Your task to perform on an android device: toggle wifi Image 0: 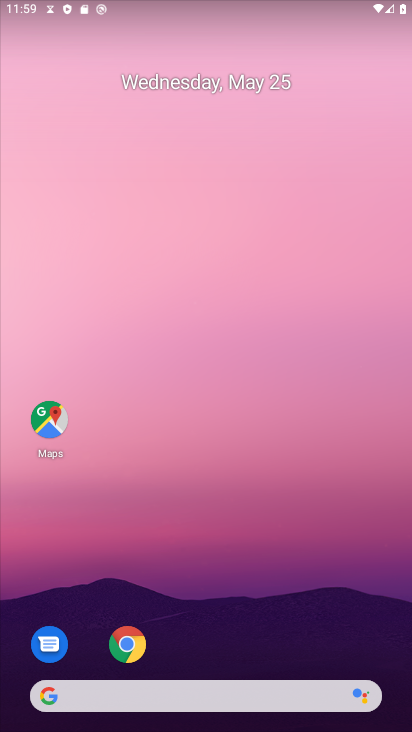
Step 0: drag from (252, 622) to (244, 135)
Your task to perform on an android device: toggle wifi Image 1: 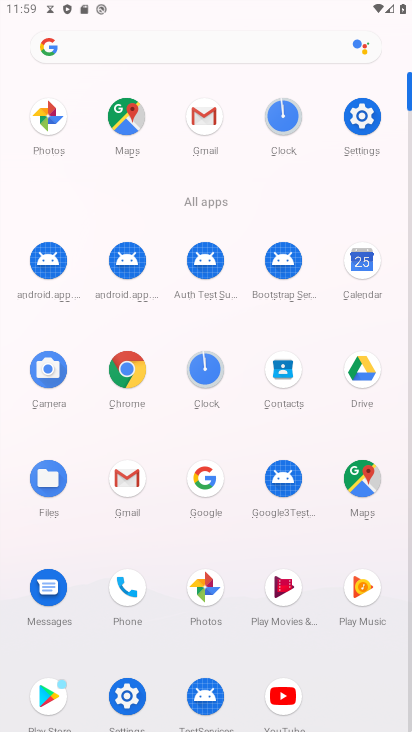
Step 1: click (361, 117)
Your task to perform on an android device: toggle wifi Image 2: 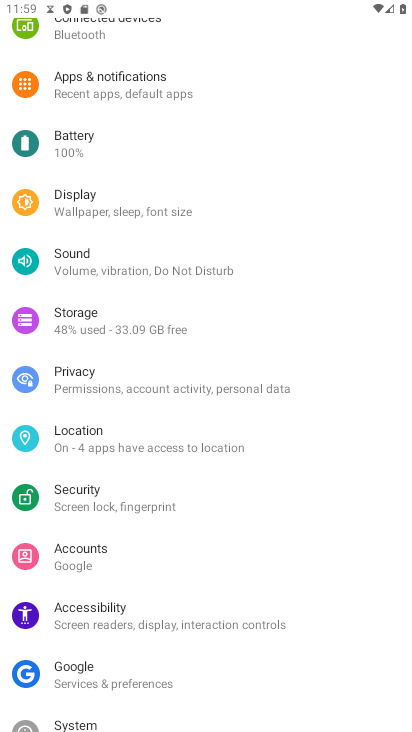
Step 2: drag from (202, 162) to (171, 261)
Your task to perform on an android device: toggle wifi Image 3: 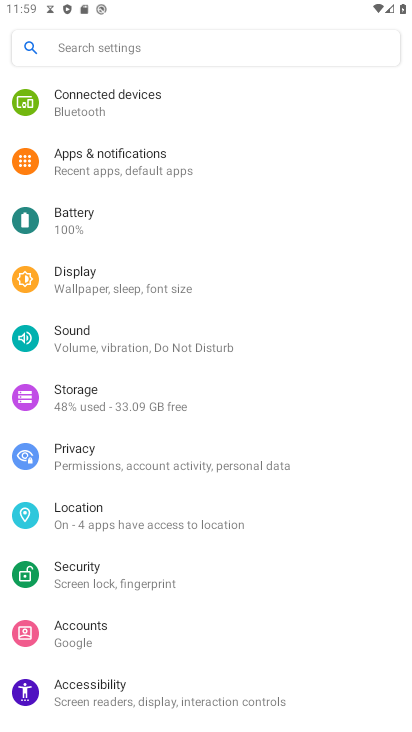
Step 3: drag from (194, 139) to (164, 315)
Your task to perform on an android device: toggle wifi Image 4: 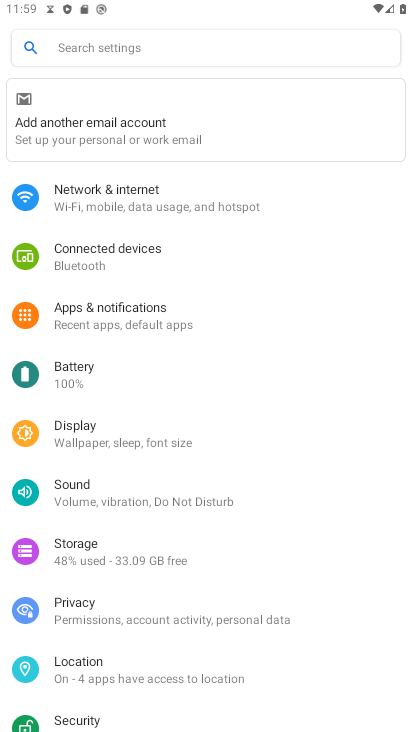
Step 4: click (129, 202)
Your task to perform on an android device: toggle wifi Image 5: 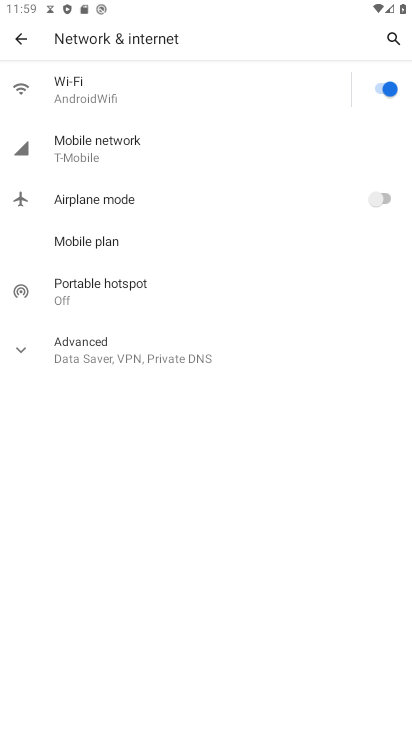
Step 5: click (384, 90)
Your task to perform on an android device: toggle wifi Image 6: 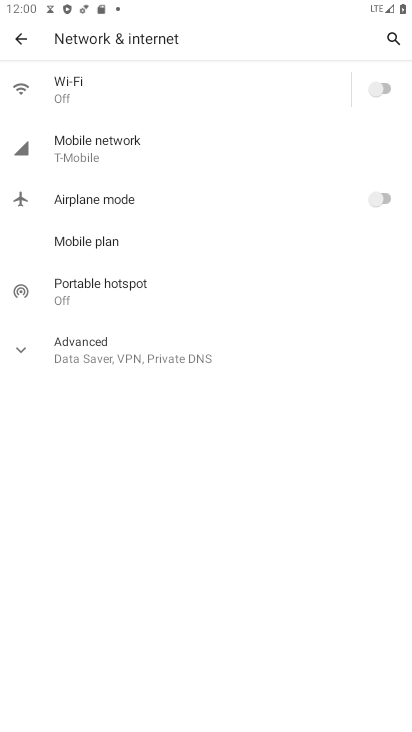
Step 6: task complete